Your task to perform on an android device: set an alarm Image 0: 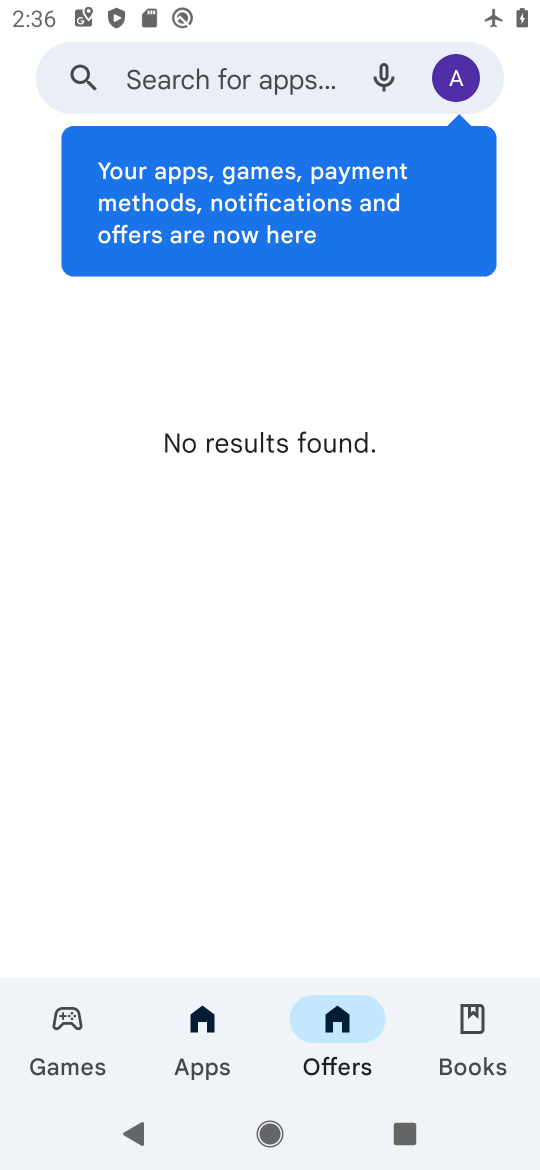
Step 0: press home button
Your task to perform on an android device: set an alarm Image 1: 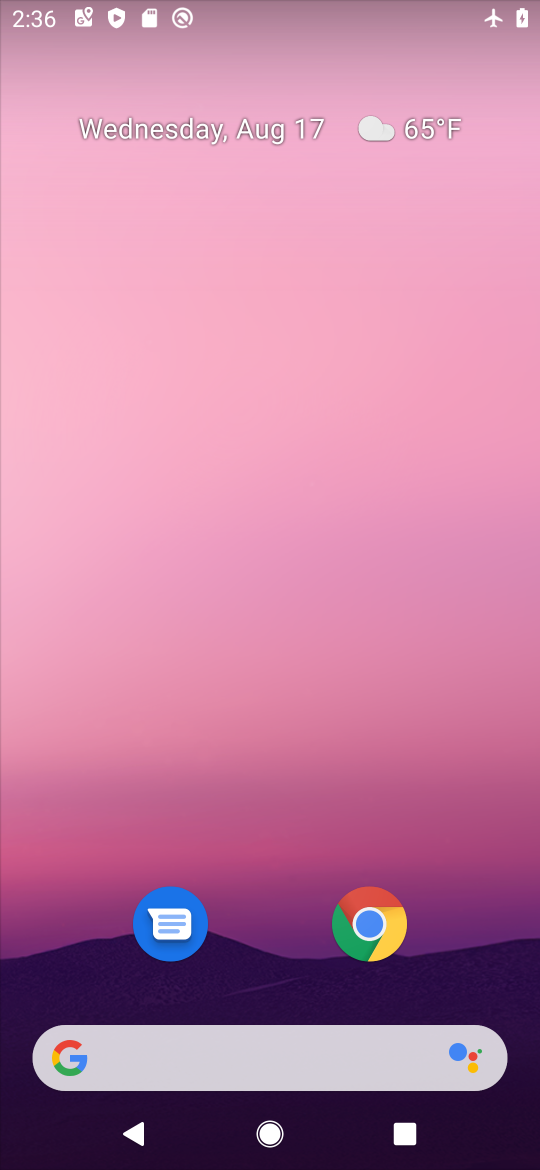
Step 1: drag from (268, 1057) to (234, 404)
Your task to perform on an android device: set an alarm Image 2: 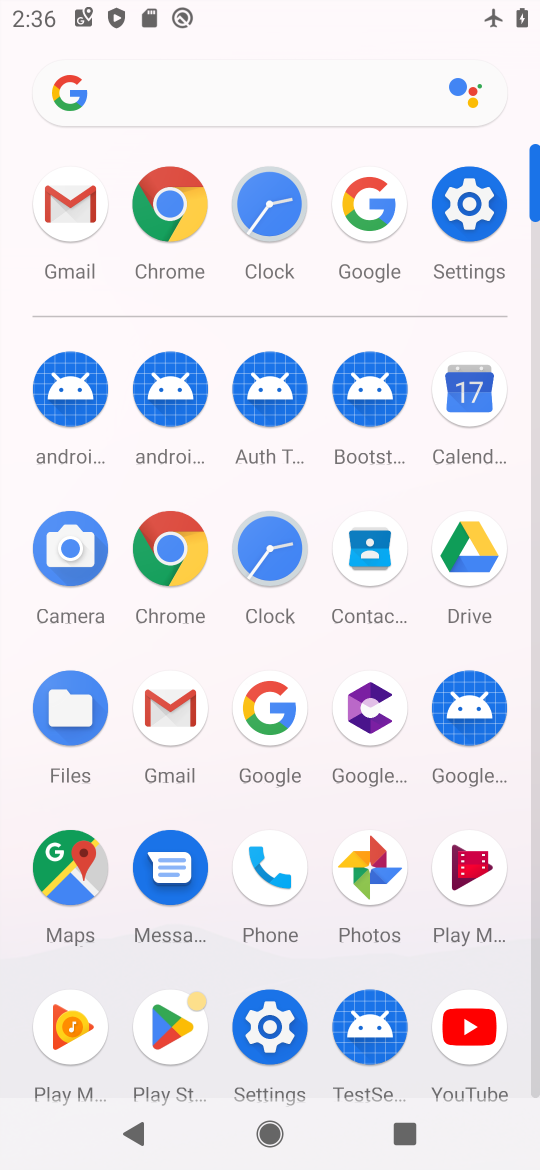
Step 2: click (269, 206)
Your task to perform on an android device: set an alarm Image 3: 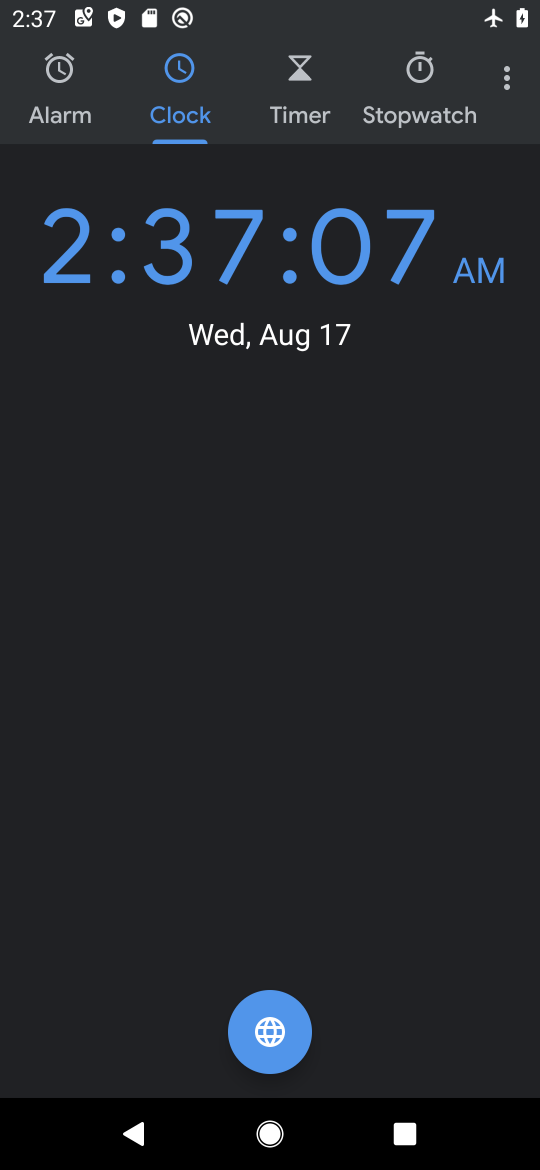
Step 3: click (62, 71)
Your task to perform on an android device: set an alarm Image 4: 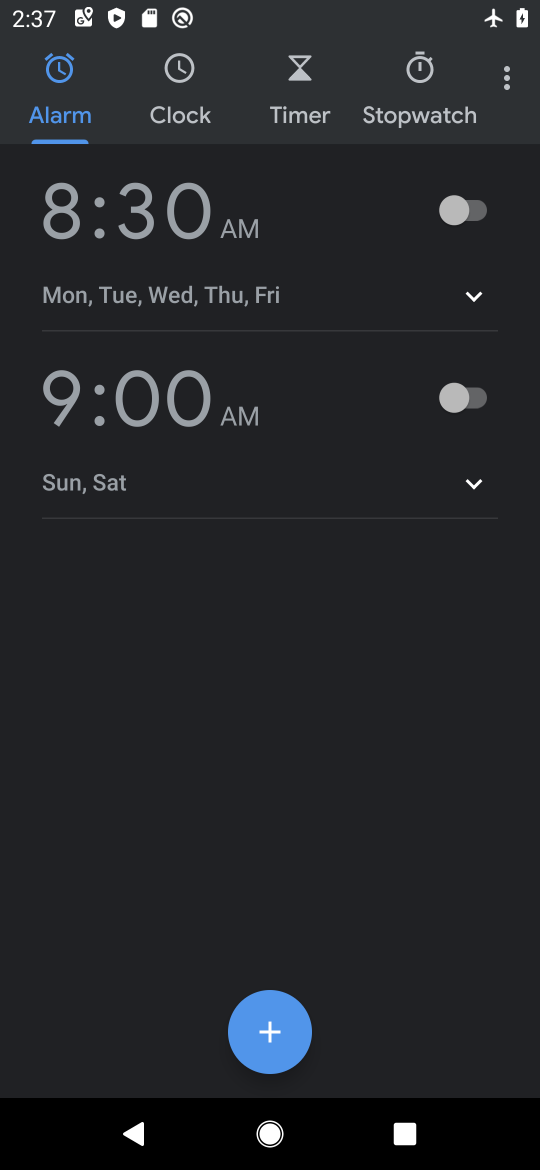
Step 4: click (119, 214)
Your task to perform on an android device: set an alarm Image 5: 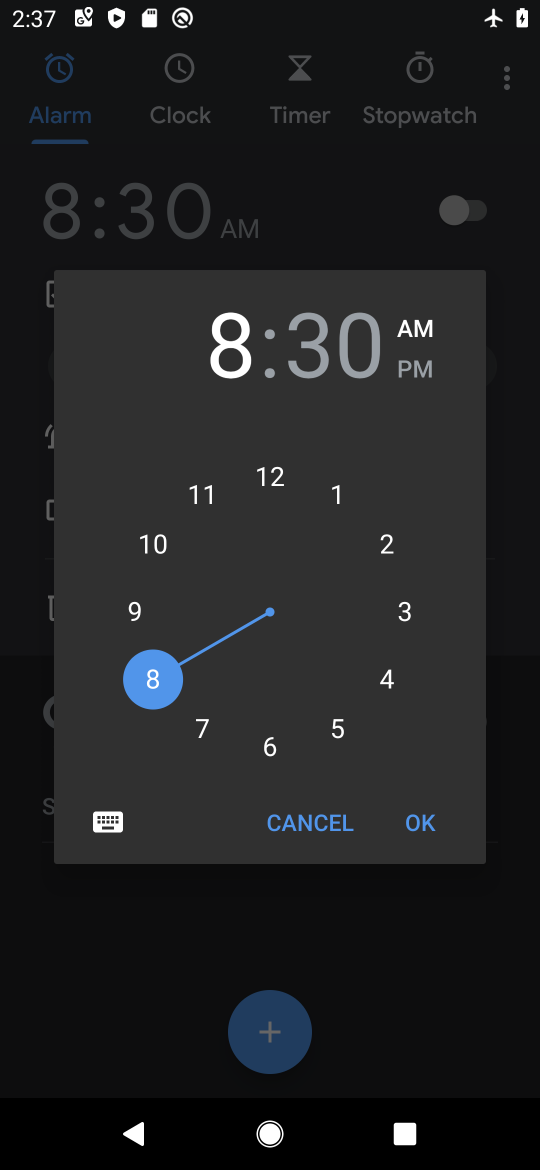
Step 5: click (269, 477)
Your task to perform on an android device: set an alarm Image 6: 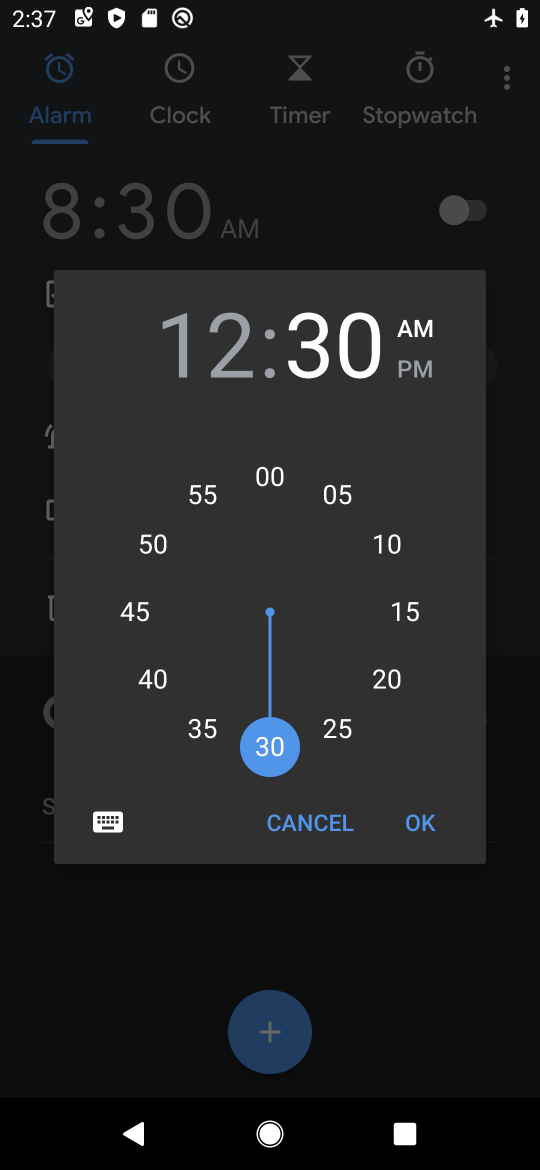
Step 6: click (180, 523)
Your task to perform on an android device: set an alarm Image 7: 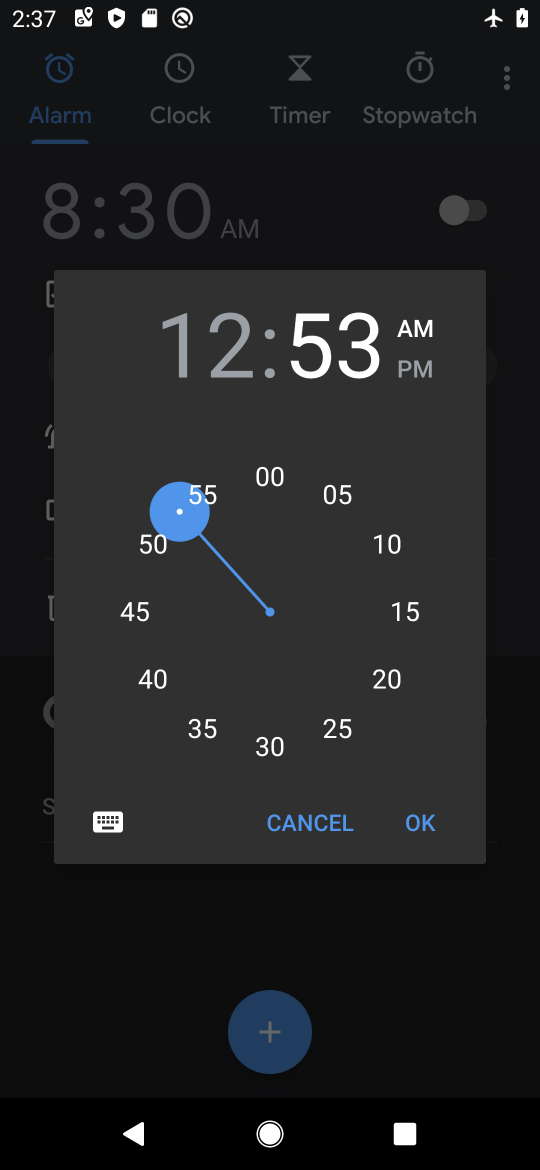
Step 7: click (423, 369)
Your task to perform on an android device: set an alarm Image 8: 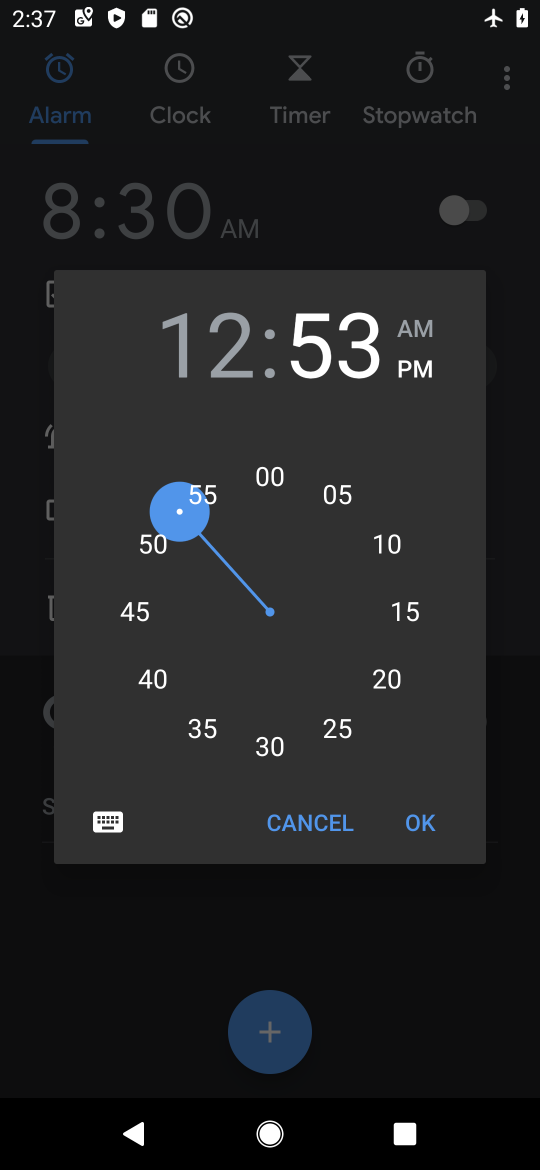
Step 8: click (427, 828)
Your task to perform on an android device: set an alarm Image 9: 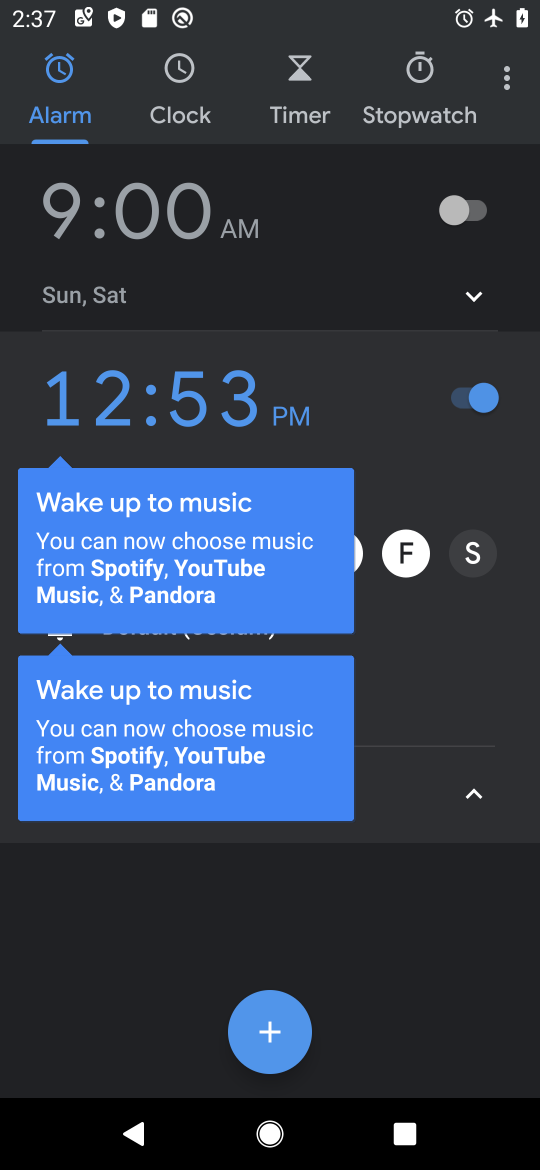
Step 9: click (464, 808)
Your task to perform on an android device: set an alarm Image 10: 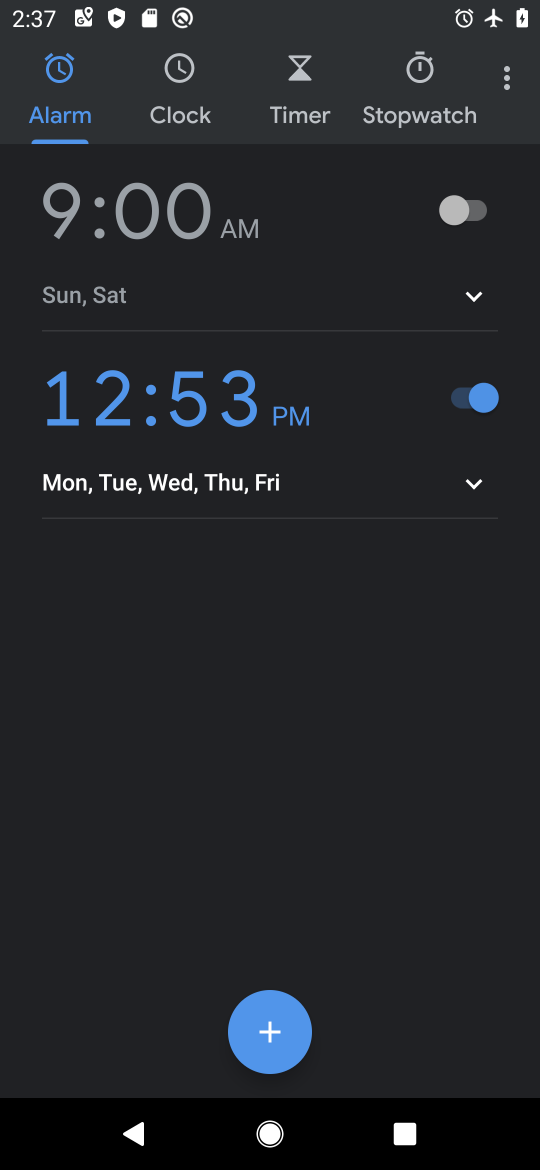
Step 10: task complete